Your task to perform on an android device: Go to wifi settings Image 0: 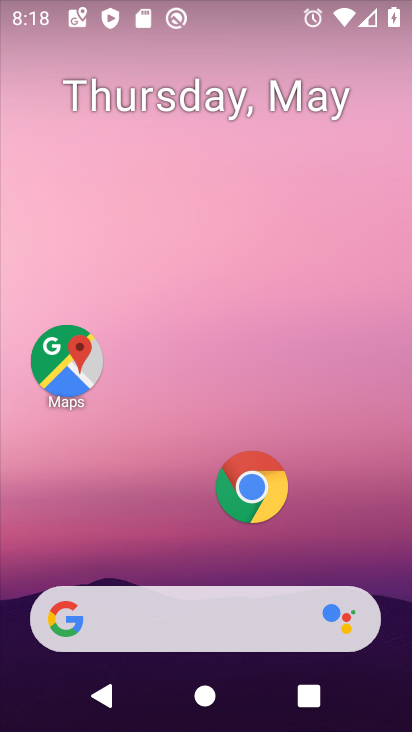
Step 0: drag from (265, 696) to (230, 20)
Your task to perform on an android device: Go to wifi settings Image 1: 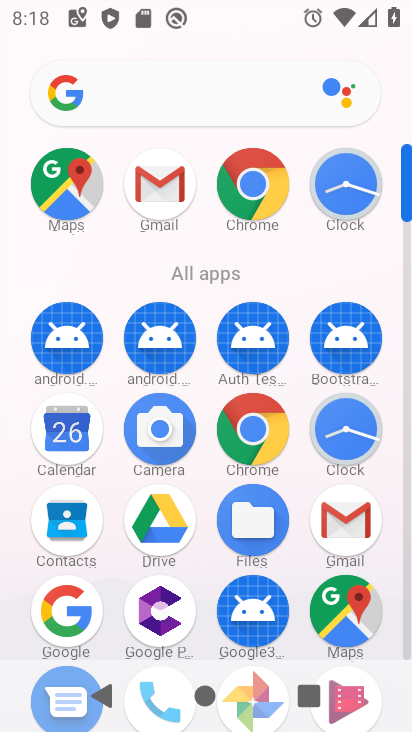
Step 1: drag from (212, 473) to (136, 150)
Your task to perform on an android device: Go to wifi settings Image 2: 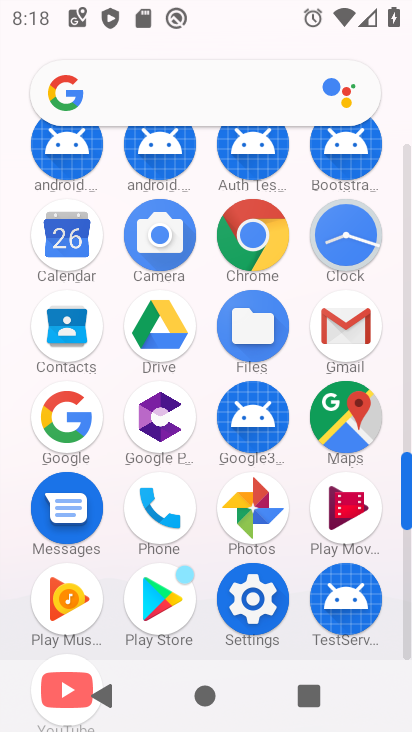
Step 2: drag from (192, 417) to (176, 101)
Your task to perform on an android device: Go to wifi settings Image 3: 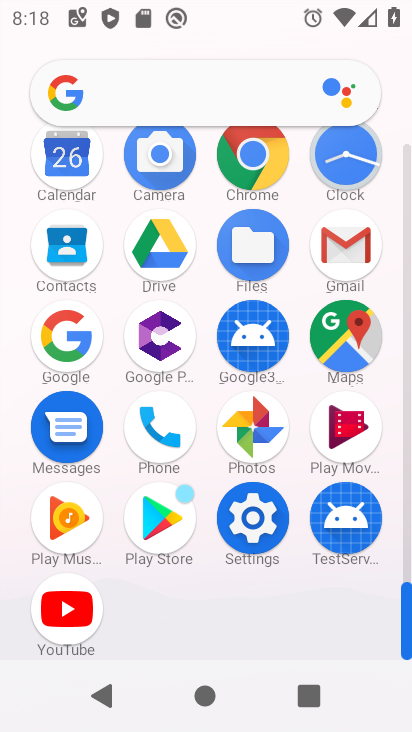
Step 3: click (250, 521)
Your task to perform on an android device: Go to wifi settings Image 4: 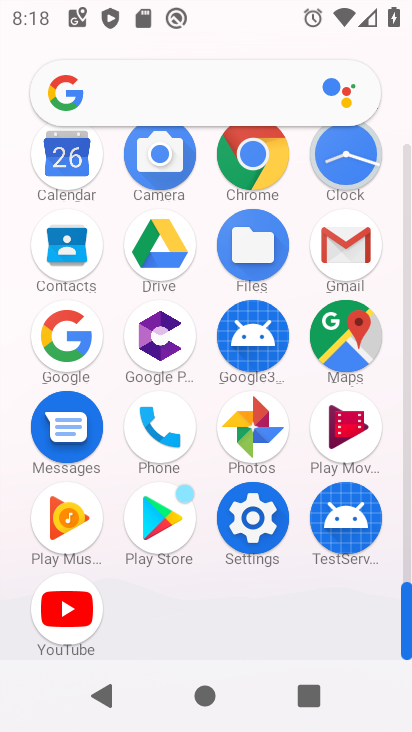
Step 4: click (251, 521)
Your task to perform on an android device: Go to wifi settings Image 5: 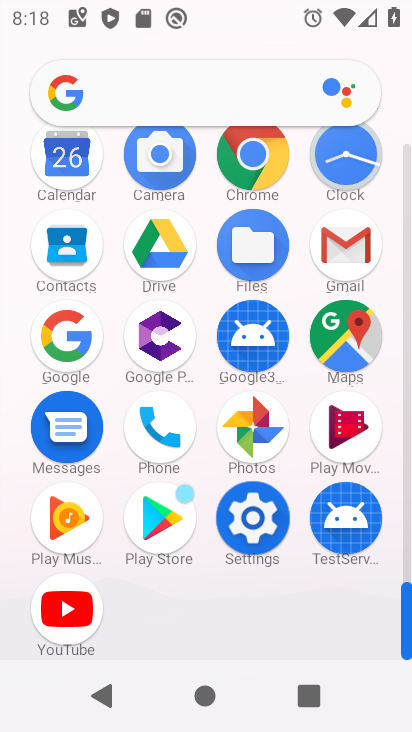
Step 5: click (251, 521)
Your task to perform on an android device: Go to wifi settings Image 6: 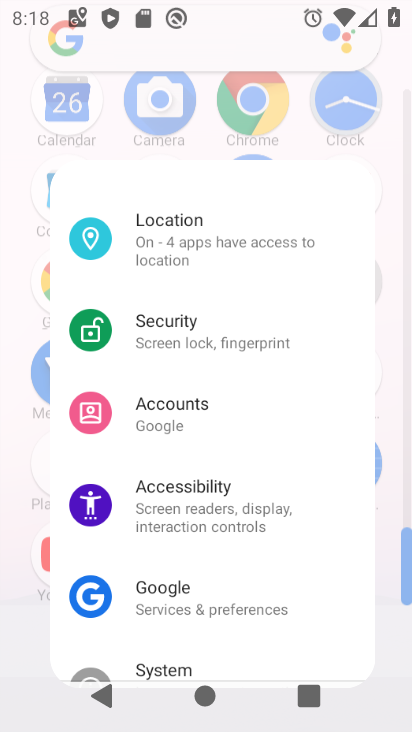
Step 6: click (252, 521)
Your task to perform on an android device: Go to wifi settings Image 7: 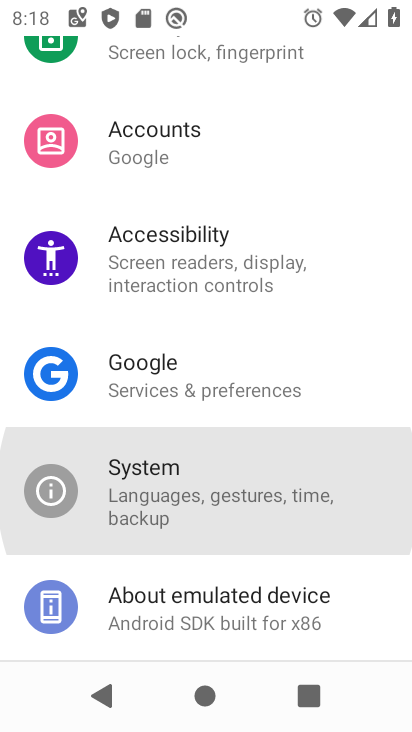
Step 7: click (255, 521)
Your task to perform on an android device: Go to wifi settings Image 8: 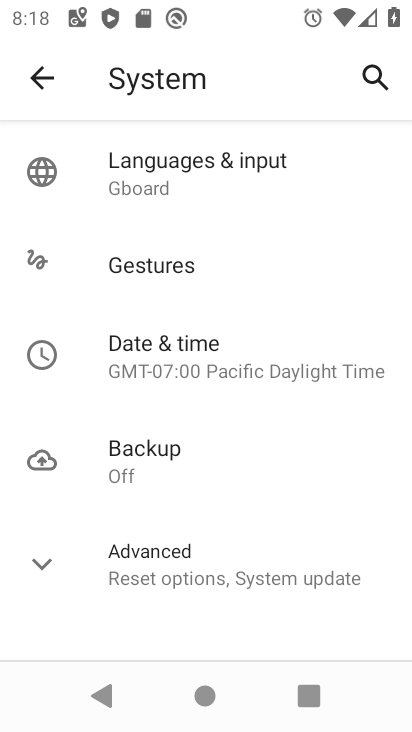
Step 8: click (35, 73)
Your task to perform on an android device: Go to wifi settings Image 9: 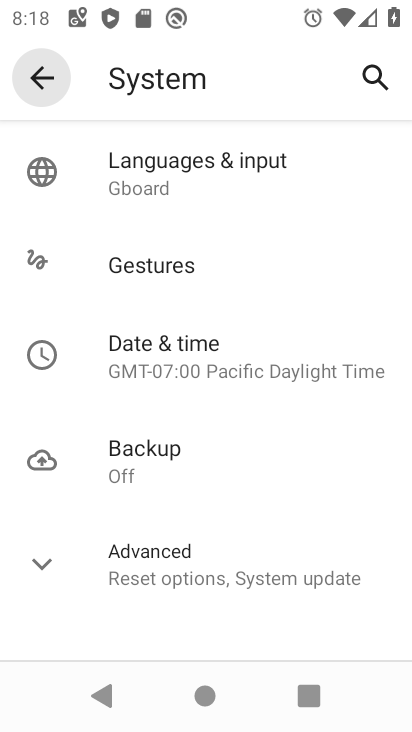
Step 9: click (39, 73)
Your task to perform on an android device: Go to wifi settings Image 10: 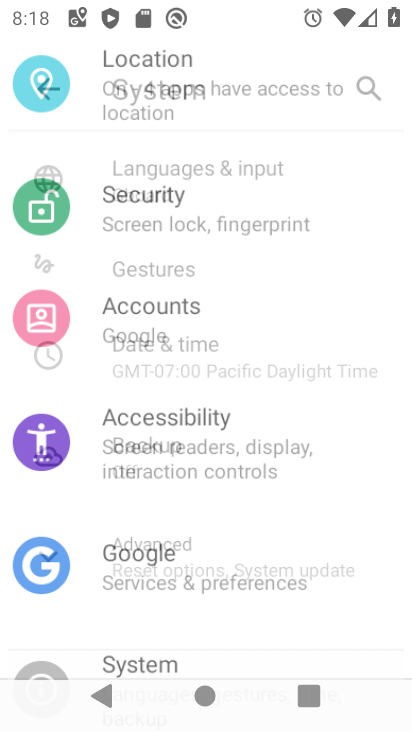
Step 10: click (51, 78)
Your task to perform on an android device: Go to wifi settings Image 11: 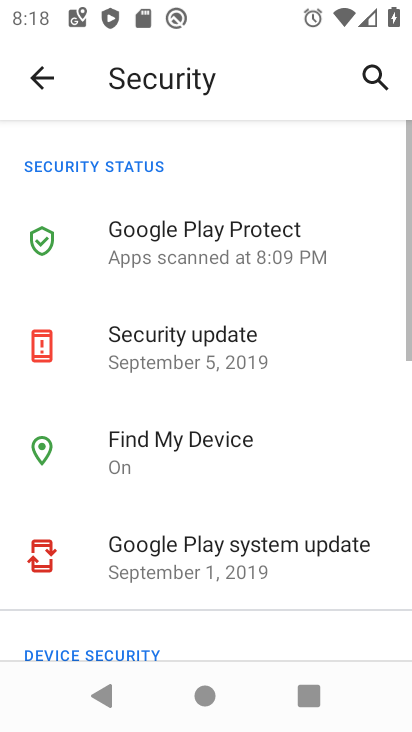
Step 11: click (43, 86)
Your task to perform on an android device: Go to wifi settings Image 12: 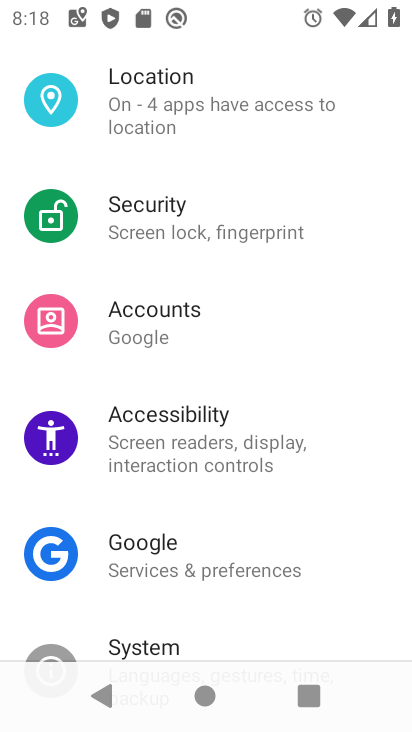
Step 12: drag from (191, 223) to (233, 544)
Your task to perform on an android device: Go to wifi settings Image 13: 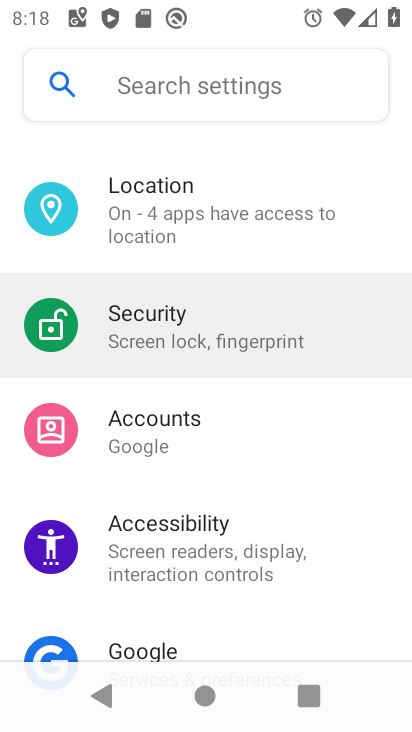
Step 13: drag from (198, 275) to (271, 702)
Your task to perform on an android device: Go to wifi settings Image 14: 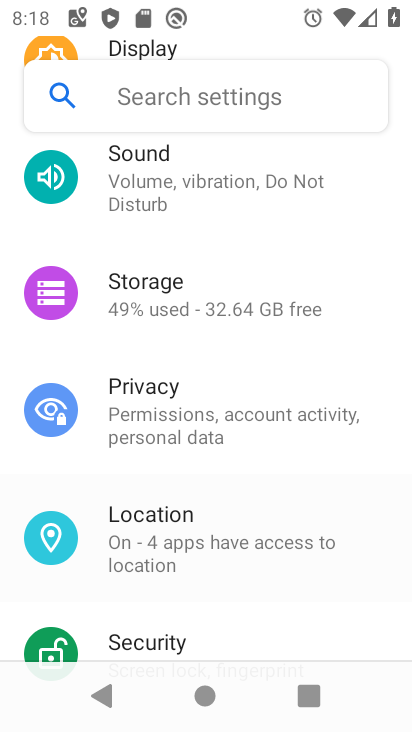
Step 14: drag from (229, 307) to (291, 658)
Your task to perform on an android device: Go to wifi settings Image 15: 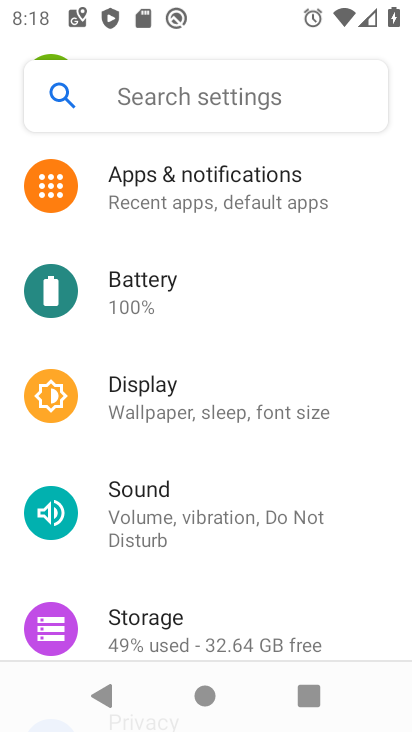
Step 15: drag from (170, 224) to (233, 585)
Your task to perform on an android device: Go to wifi settings Image 16: 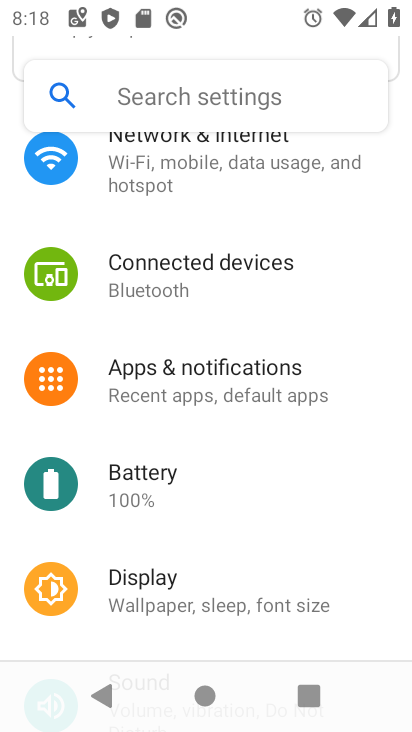
Step 16: drag from (172, 218) to (210, 455)
Your task to perform on an android device: Go to wifi settings Image 17: 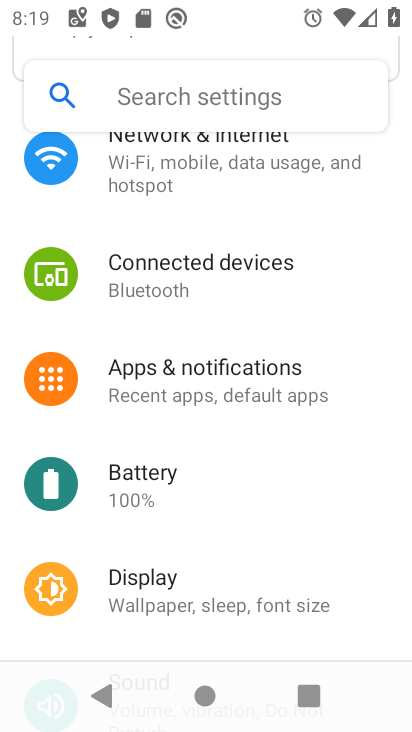
Step 17: drag from (150, 164) to (225, 512)
Your task to perform on an android device: Go to wifi settings Image 18: 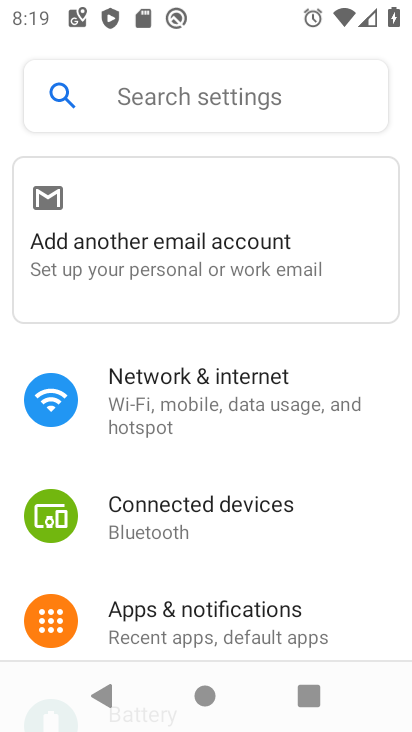
Step 18: click (196, 386)
Your task to perform on an android device: Go to wifi settings Image 19: 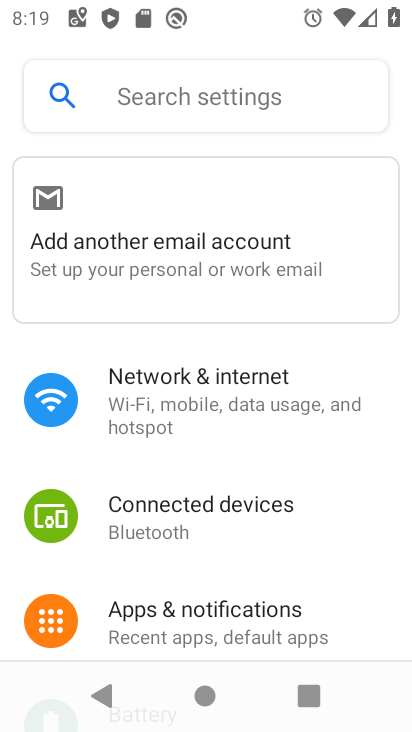
Step 19: click (201, 403)
Your task to perform on an android device: Go to wifi settings Image 20: 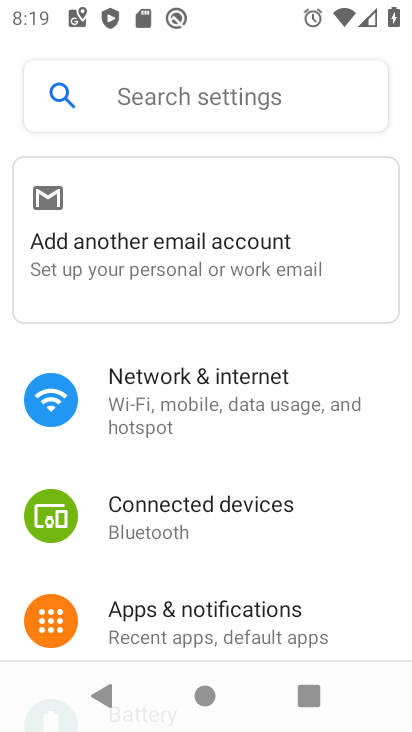
Step 20: click (201, 403)
Your task to perform on an android device: Go to wifi settings Image 21: 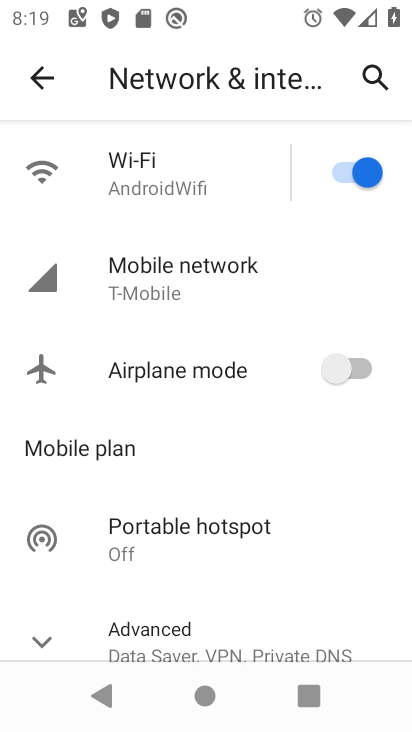
Step 21: task complete